Your task to perform on an android device: delete browsing data in the chrome app Image 0: 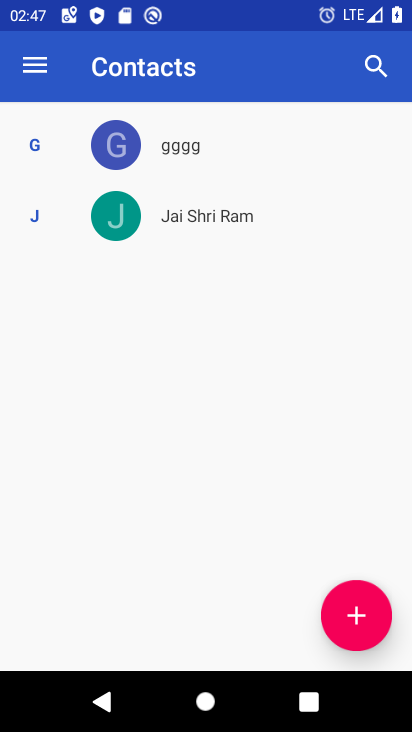
Step 0: press home button
Your task to perform on an android device: delete browsing data in the chrome app Image 1: 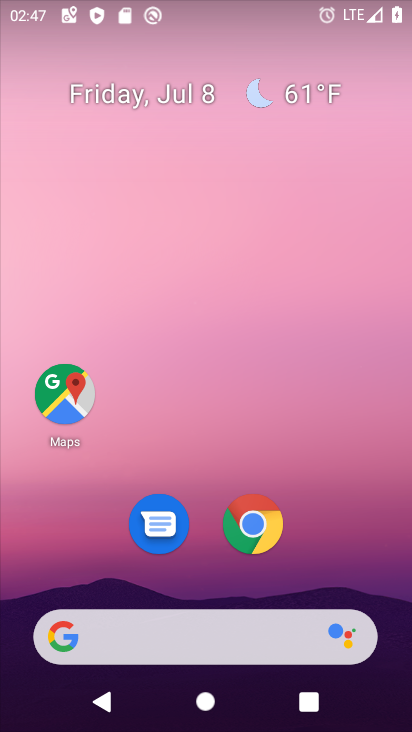
Step 1: click (273, 527)
Your task to perform on an android device: delete browsing data in the chrome app Image 2: 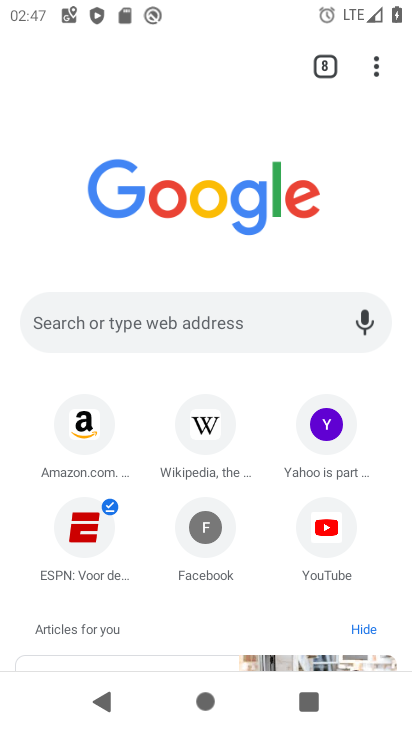
Step 2: click (379, 68)
Your task to perform on an android device: delete browsing data in the chrome app Image 3: 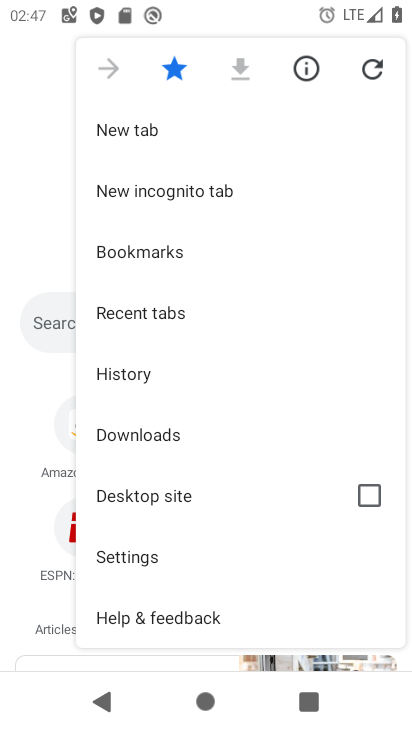
Step 3: click (138, 372)
Your task to perform on an android device: delete browsing data in the chrome app Image 4: 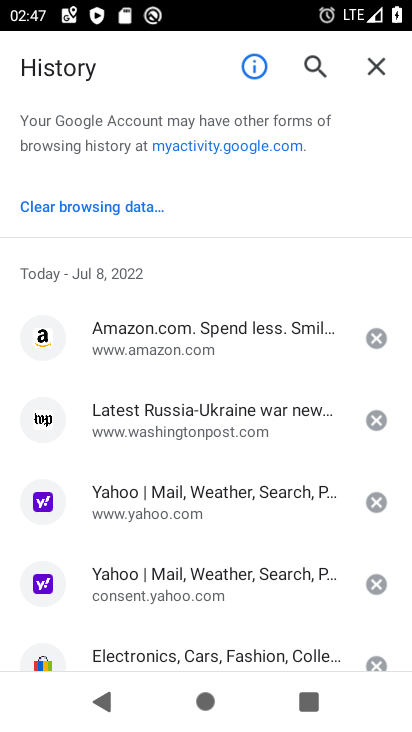
Step 4: click (113, 203)
Your task to perform on an android device: delete browsing data in the chrome app Image 5: 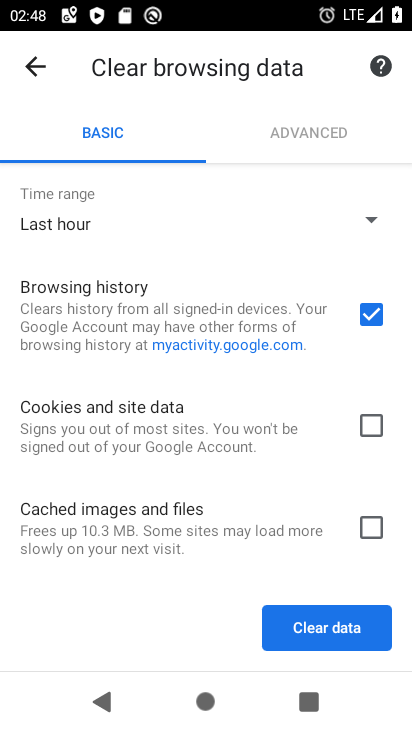
Step 5: click (369, 423)
Your task to perform on an android device: delete browsing data in the chrome app Image 6: 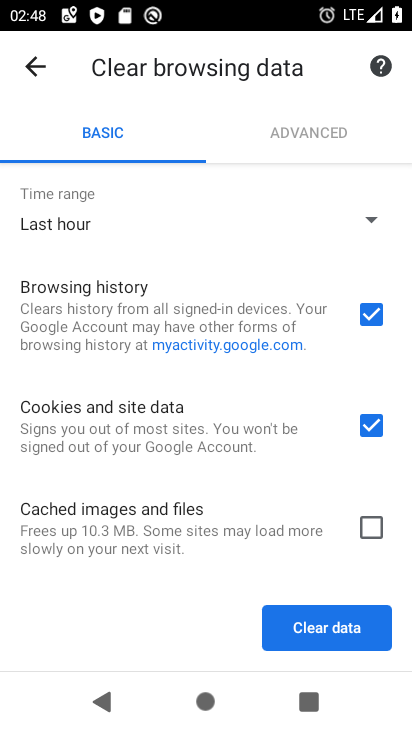
Step 6: click (365, 522)
Your task to perform on an android device: delete browsing data in the chrome app Image 7: 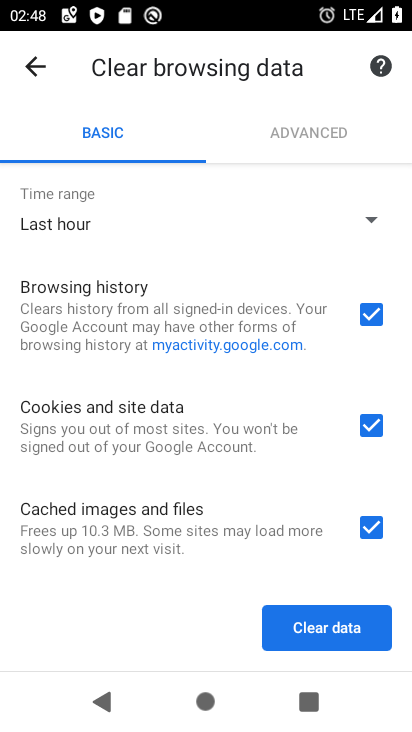
Step 7: click (346, 622)
Your task to perform on an android device: delete browsing data in the chrome app Image 8: 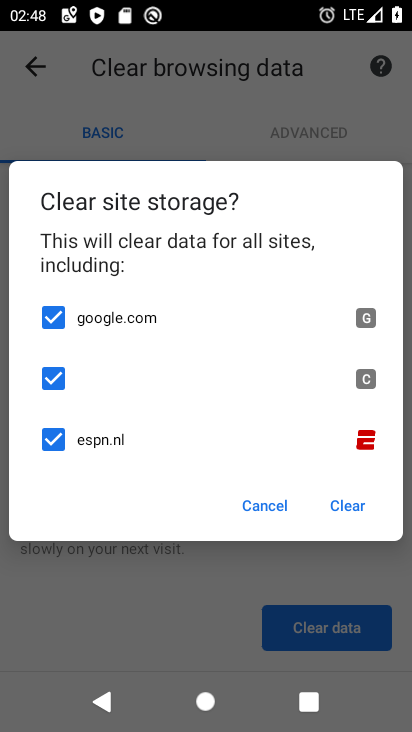
Step 8: click (353, 504)
Your task to perform on an android device: delete browsing data in the chrome app Image 9: 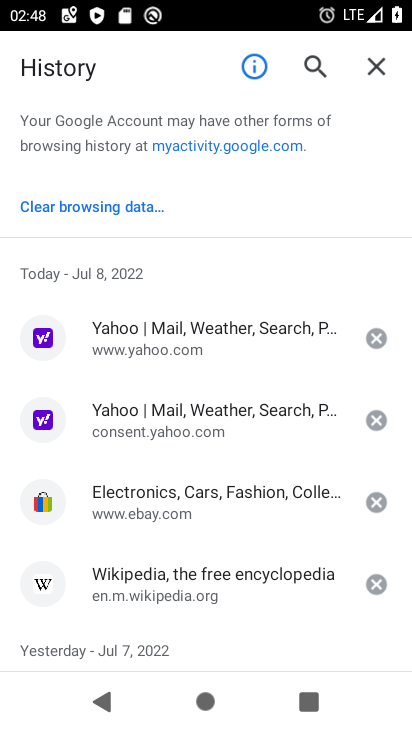
Step 9: task complete